Your task to perform on an android device: add a contact Image 0: 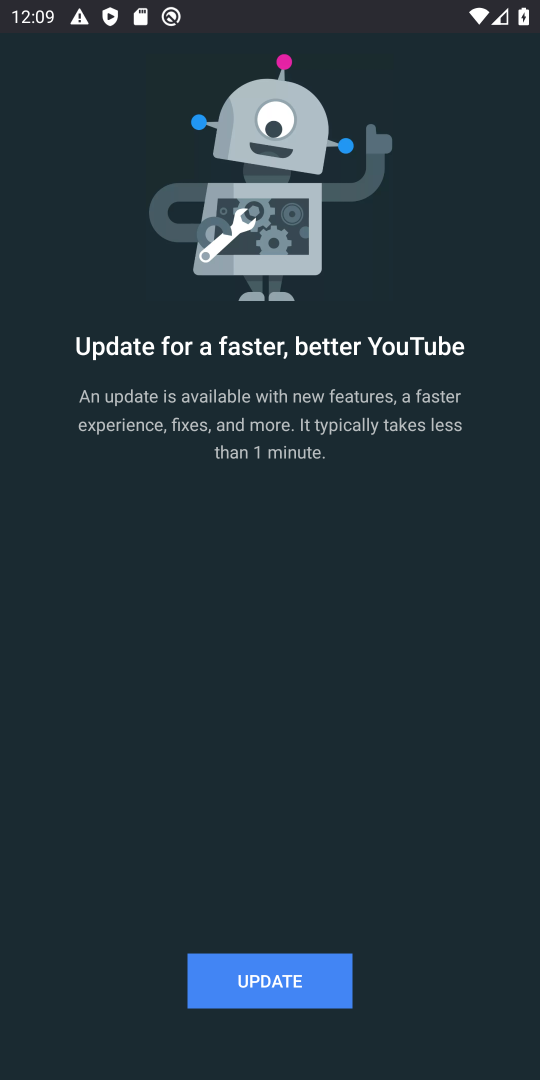
Step 0: press home button
Your task to perform on an android device: add a contact Image 1: 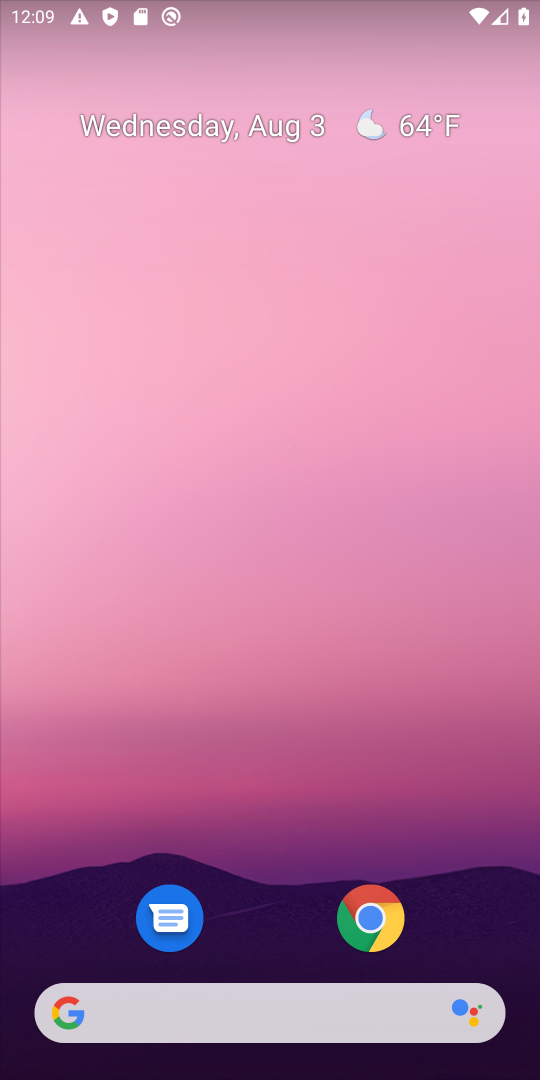
Step 1: drag from (265, 824) to (288, 119)
Your task to perform on an android device: add a contact Image 2: 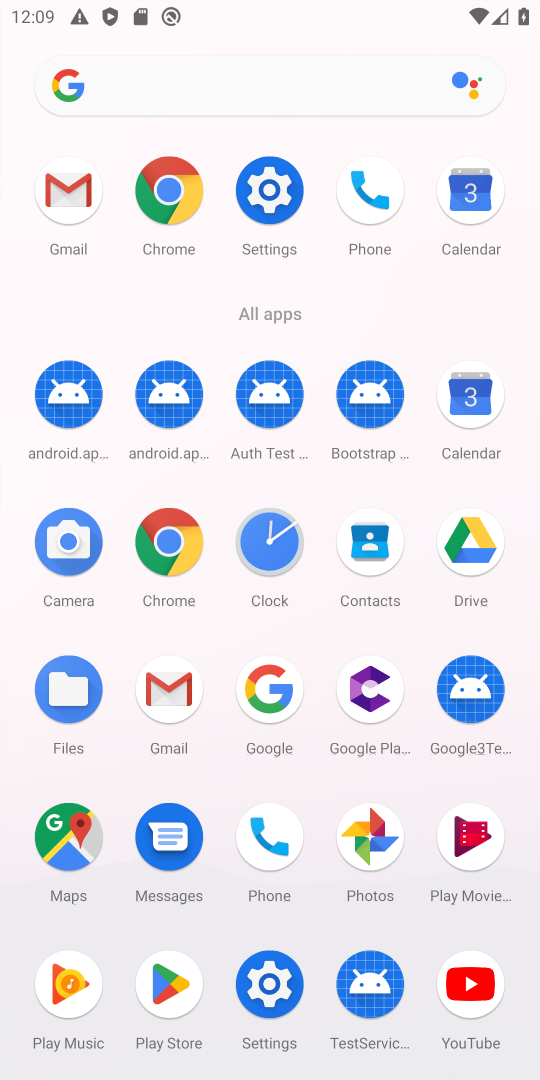
Step 2: click (378, 531)
Your task to perform on an android device: add a contact Image 3: 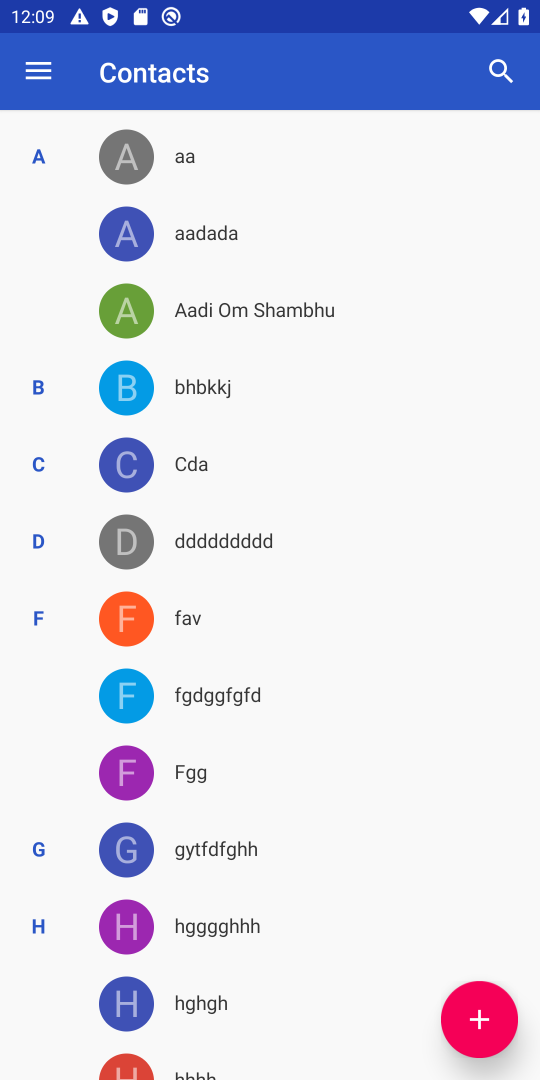
Step 3: click (480, 1024)
Your task to perform on an android device: add a contact Image 4: 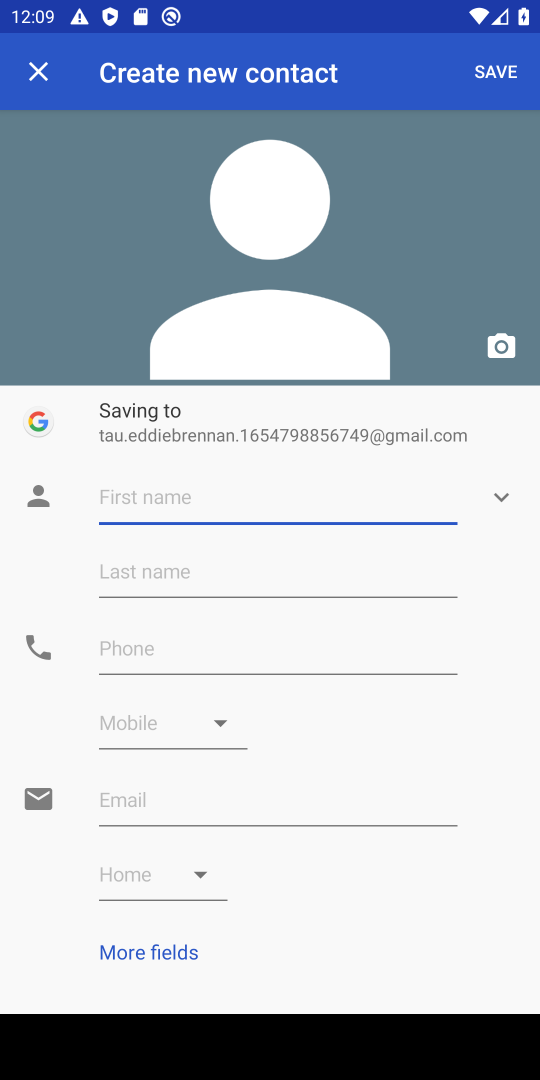
Step 4: type "Om"
Your task to perform on an android device: add a contact Image 5: 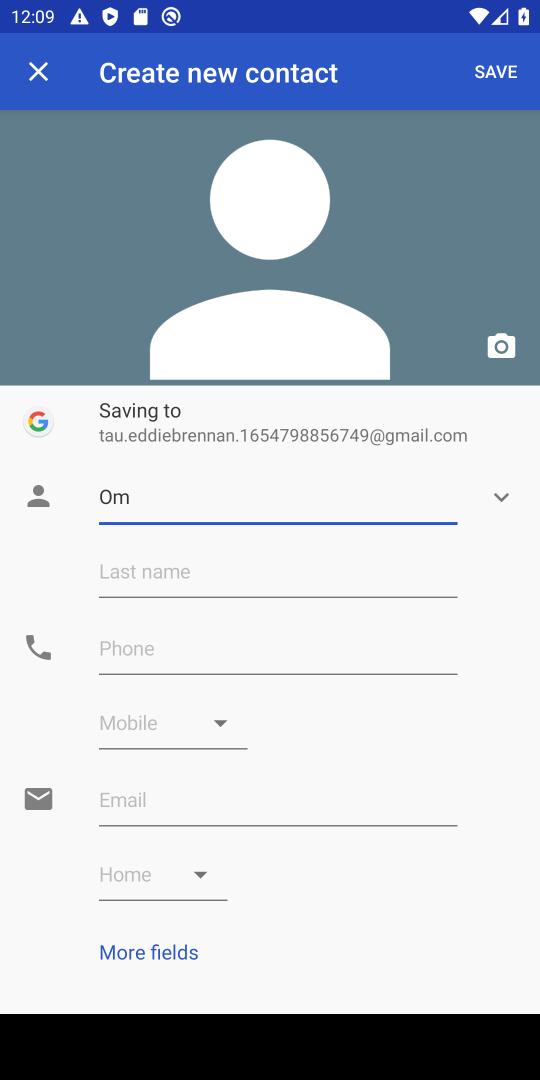
Step 5: click (362, 657)
Your task to perform on an android device: add a contact Image 6: 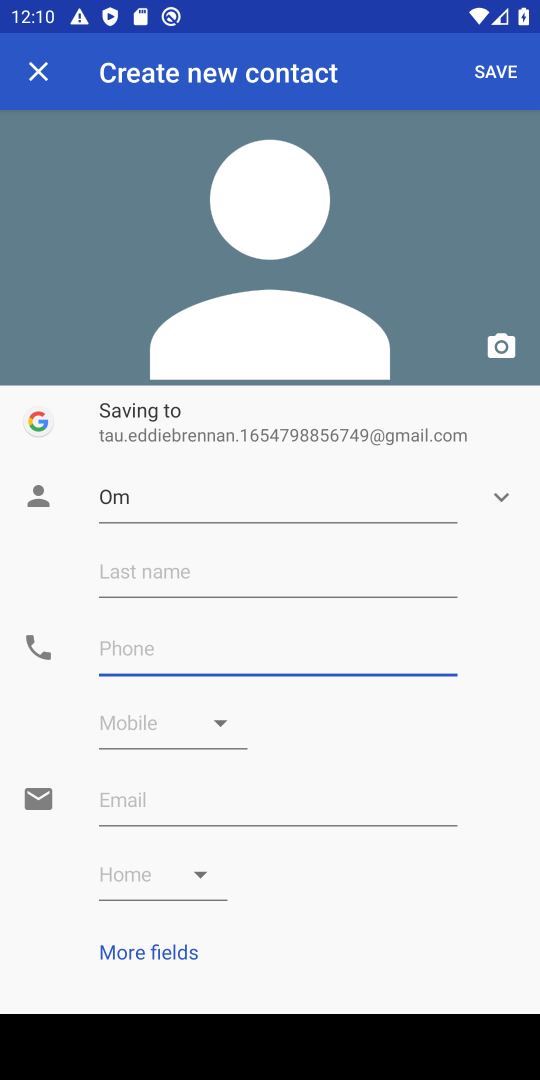
Step 6: type "+9111100"
Your task to perform on an android device: add a contact Image 7: 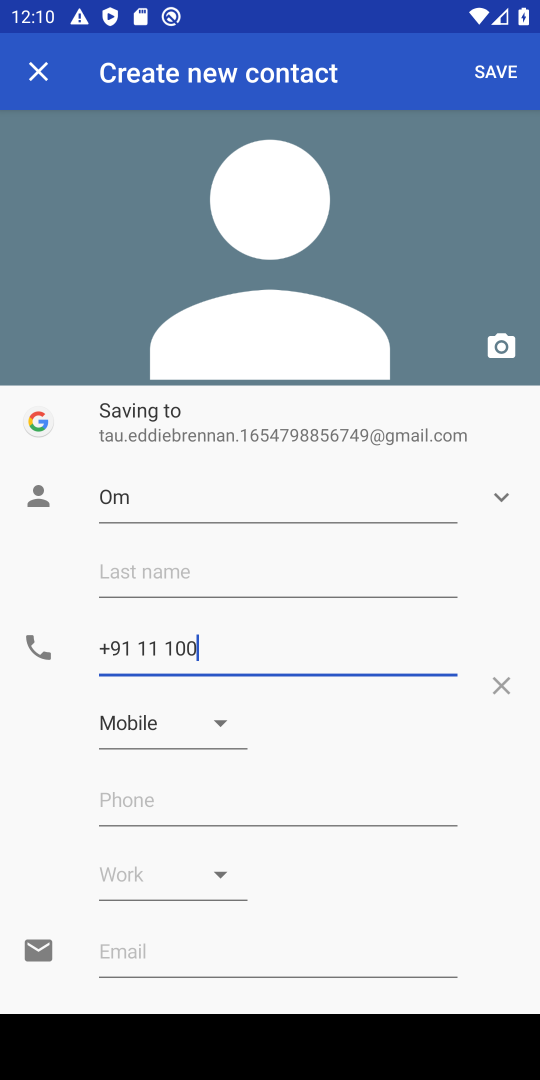
Step 7: click (491, 77)
Your task to perform on an android device: add a contact Image 8: 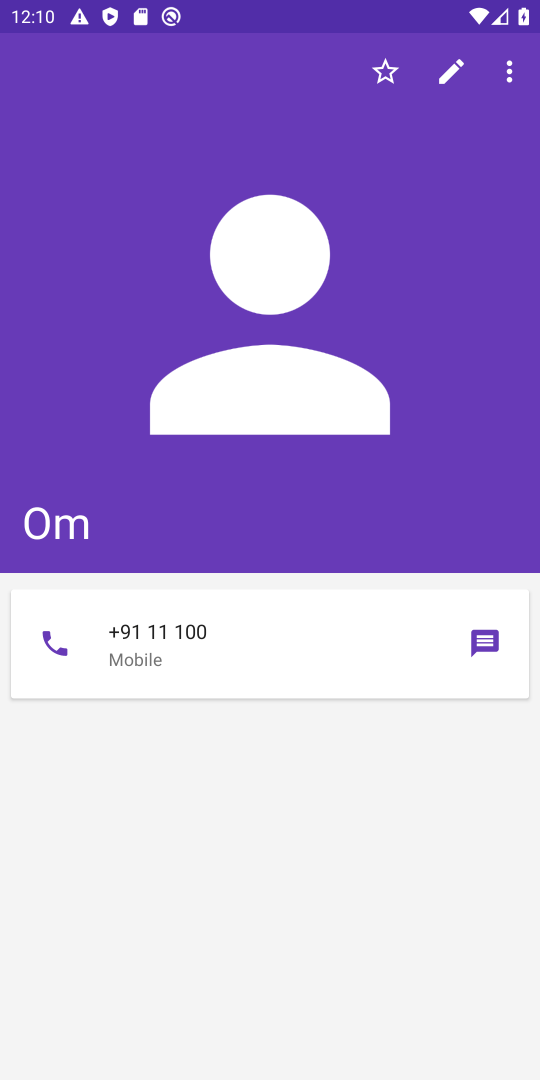
Step 8: task complete